Your task to perform on an android device: Search for seafood restaurants on Google Maps Image 0: 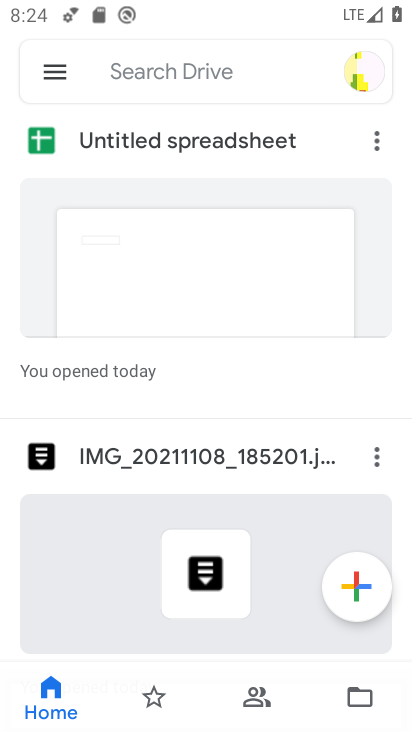
Step 0: press back button
Your task to perform on an android device: Search for seafood restaurants on Google Maps Image 1: 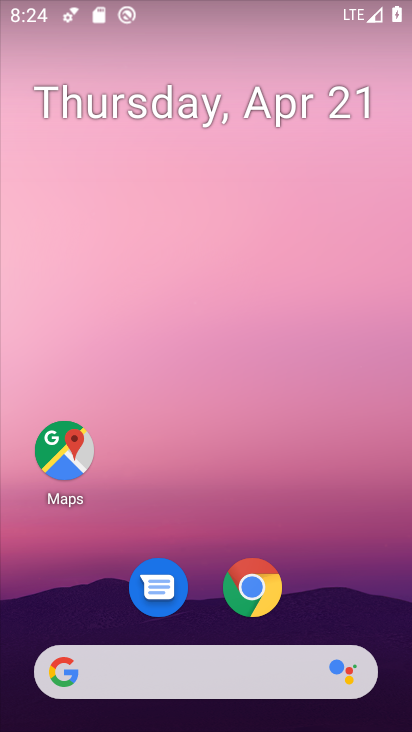
Step 1: click (61, 440)
Your task to perform on an android device: Search for seafood restaurants on Google Maps Image 2: 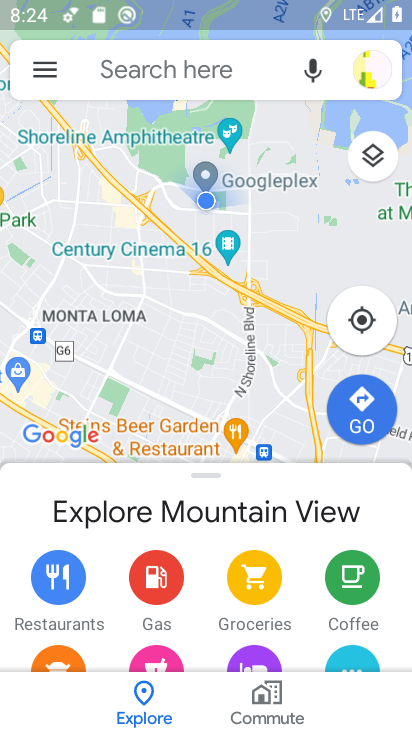
Step 2: click (125, 70)
Your task to perform on an android device: Search for seafood restaurants on Google Maps Image 3: 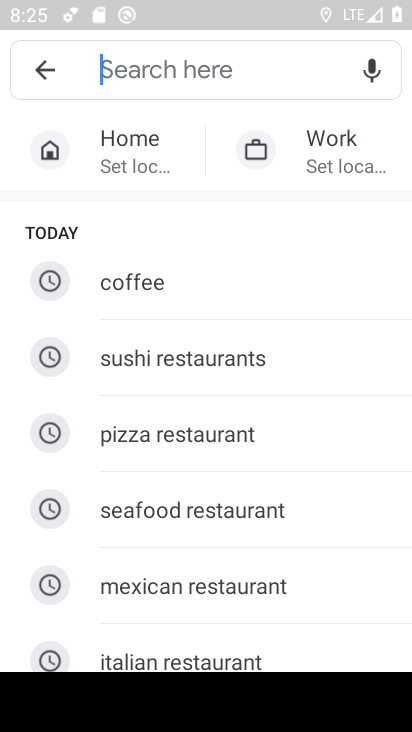
Step 3: type "seafood restaurants"
Your task to perform on an android device: Search for seafood restaurants on Google Maps Image 4: 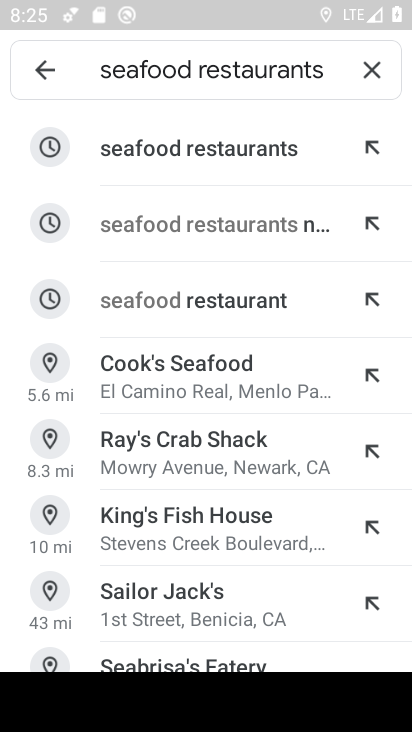
Step 4: click (135, 141)
Your task to perform on an android device: Search for seafood restaurants on Google Maps Image 5: 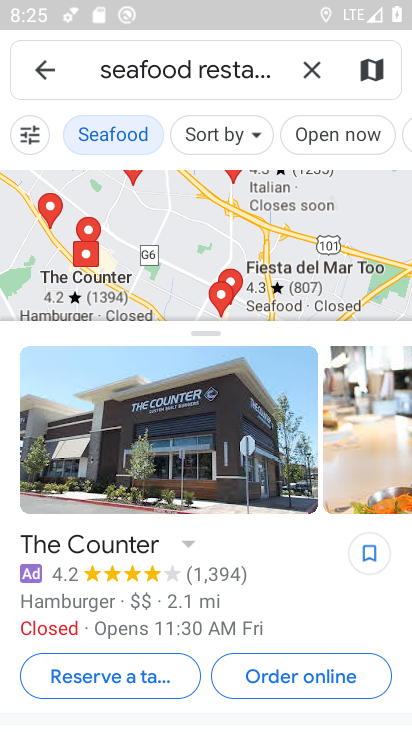
Step 5: task complete